Your task to perform on an android device: visit the assistant section in the google photos Image 0: 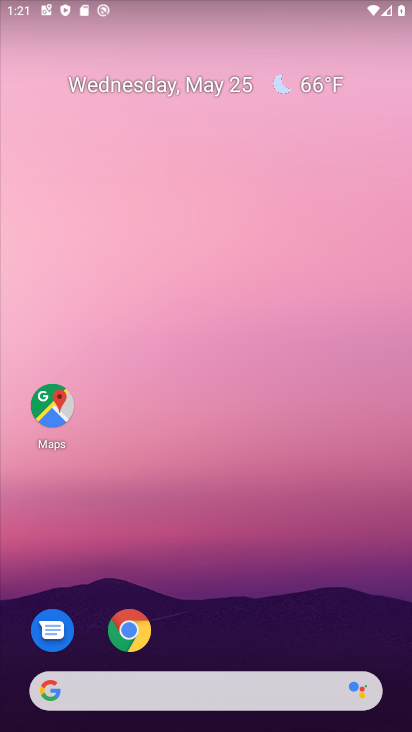
Step 0: press home button
Your task to perform on an android device: visit the assistant section in the google photos Image 1: 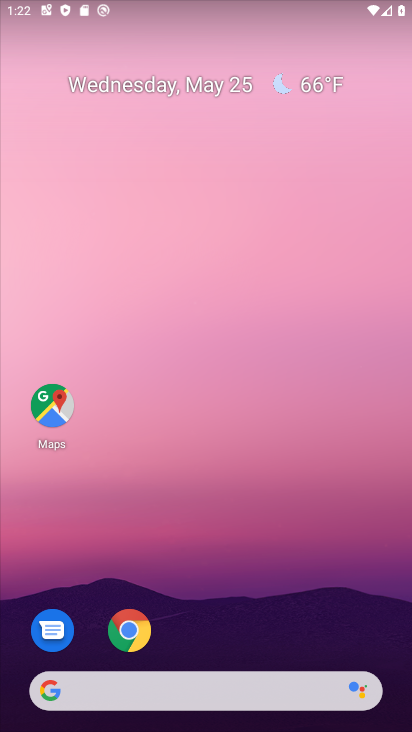
Step 1: drag from (201, 654) to (212, 134)
Your task to perform on an android device: visit the assistant section in the google photos Image 2: 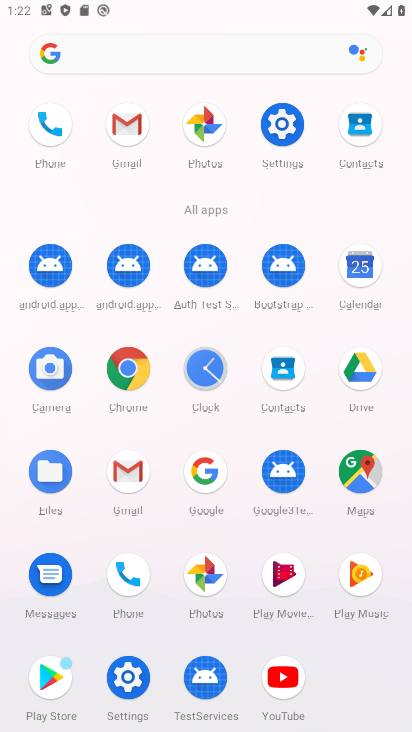
Step 2: click (197, 568)
Your task to perform on an android device: visit the assistant section in the google photos Image 3: 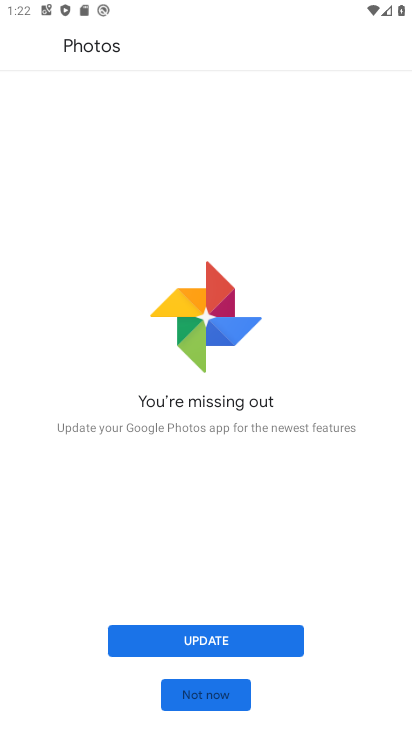
Step 3: click (212, 634)
Your task to perform on an android device: visit the assistant section in the google photos Image 4: 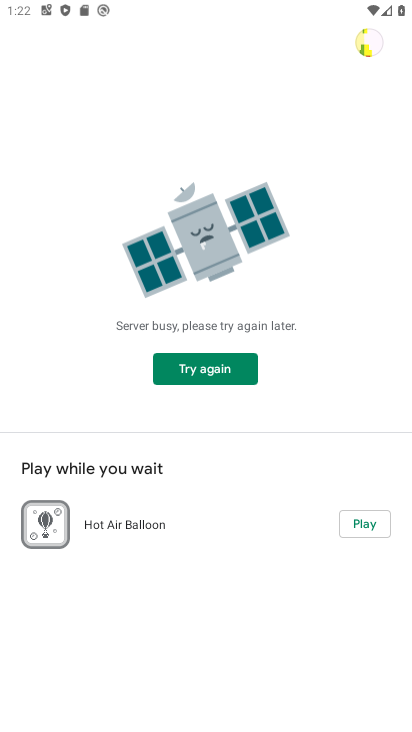
Step 4: task complete